Your task to perform on an android device: Go to calendar. Show me events next week Image 0: 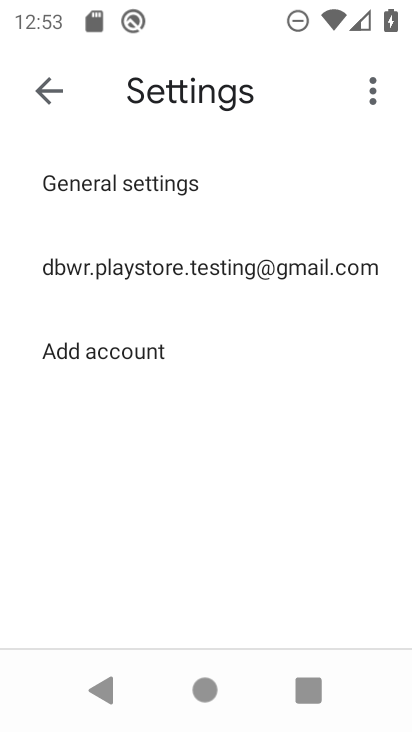
Step 0: press home button
Your task to perform on an android device: Go to calendar. Show me events next week Image 1: 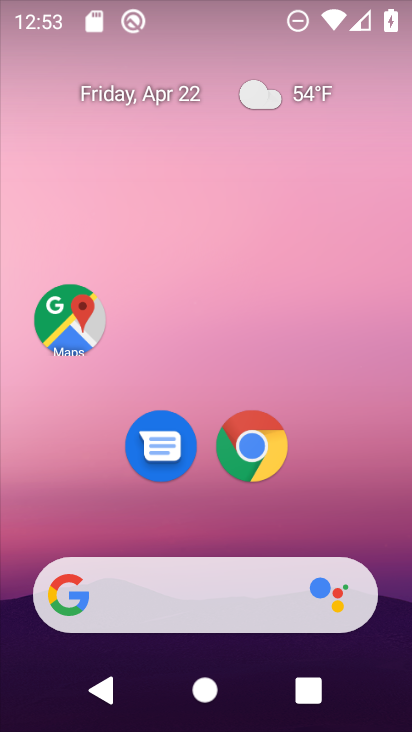
Step 1: drag from (397, 593) to (378, 172)
Your task to perform on an android device: Go to calendar. Show me events next week Image 2: 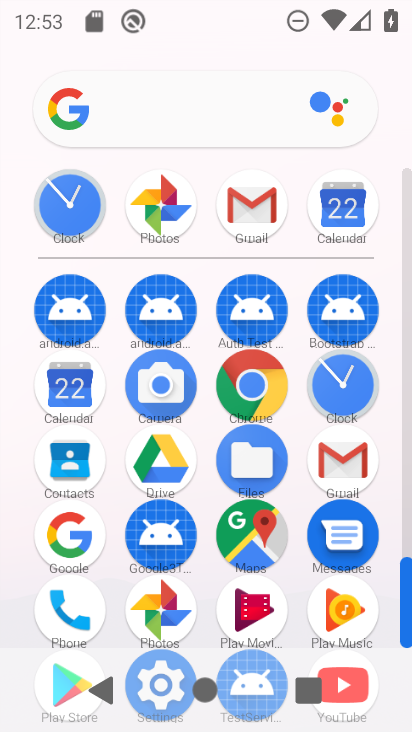
Step 2: click (348, 196)
Your task to perform on an android device: Go to calendar. Show me events next week Image 3: 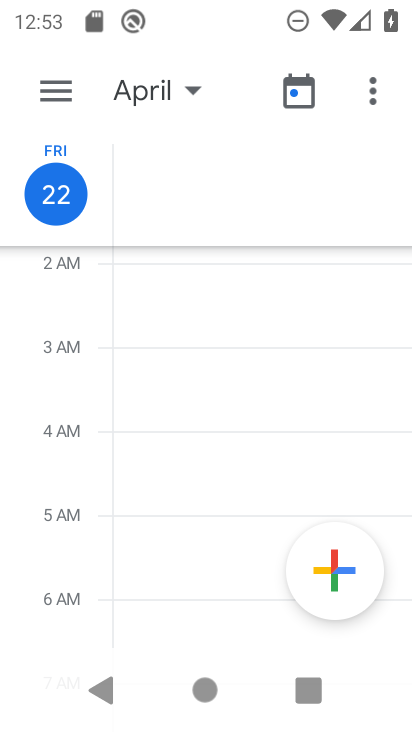
Step 3: click (176, 100)
Your task to perform on an android device: Go to calendar. Show me events next week Image 4: 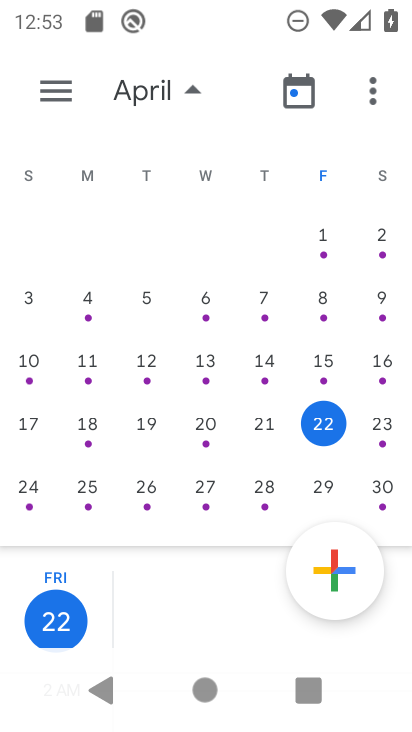
Step 4: click (200, 505)
Your task to perform on an android device: Go to calendar. Show me events next week Image 5: 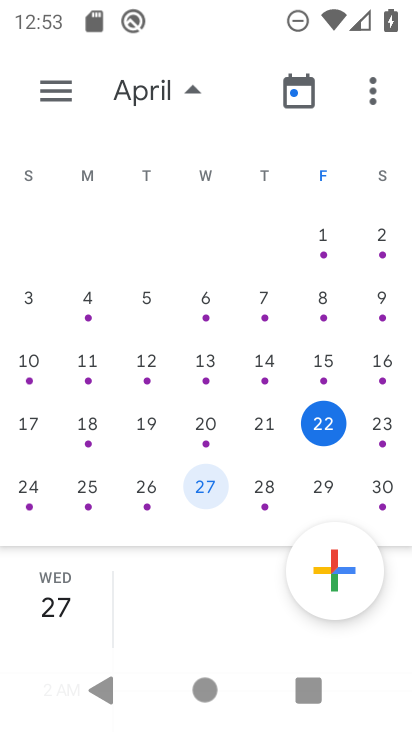
Step 5: click (184, 78)
Your task to perform on an android device: Go to calendar. Show me events next week Image 6: 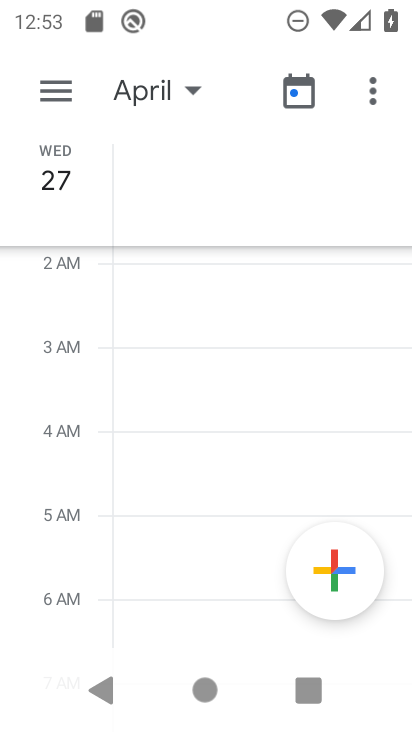
Step 6: click (67, 93)
Your task to perform on an android device: Go to calendar. Show me events next week Image 7: 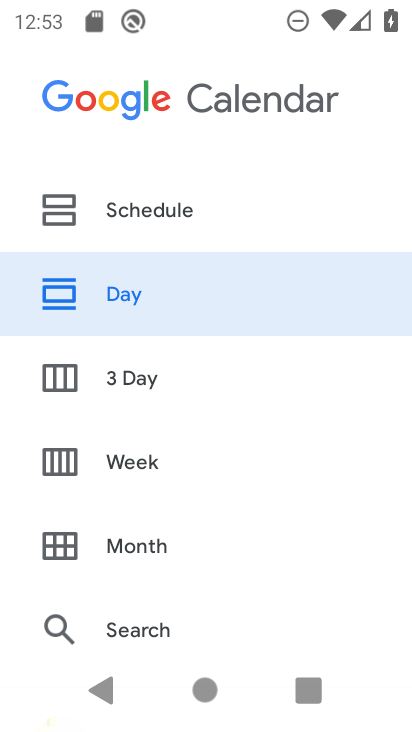
Step 7: click (204, 451)
Your task to perform on an android device: Go to calendar. Show me events next week Image 8: 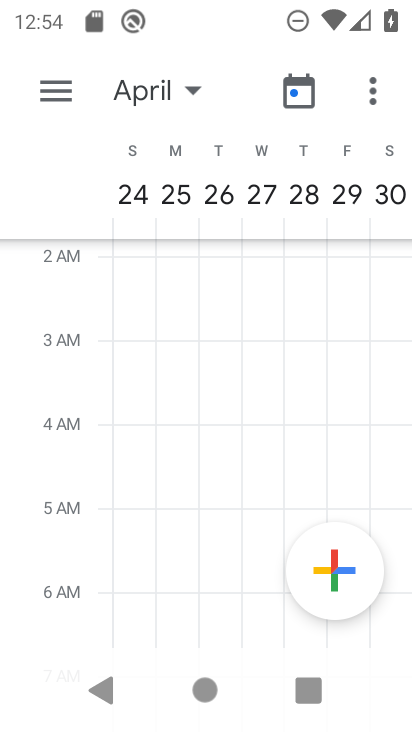
Step 8: task complete